Your task to perform on an android device: Go to eBay Image 0: 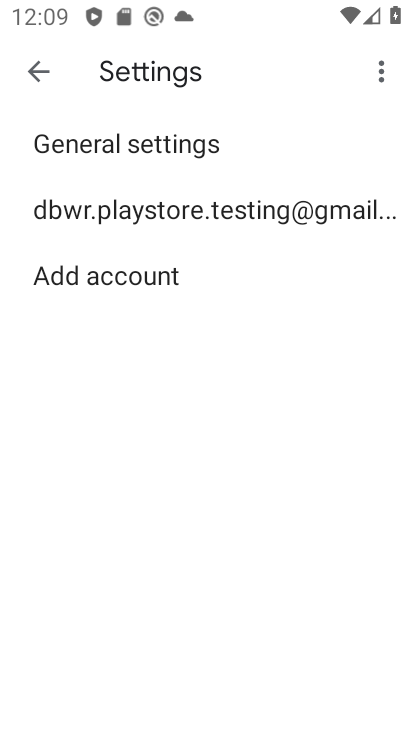
Step 0: press home button
Your task to perform on an android device: Go to eBay Image 1: 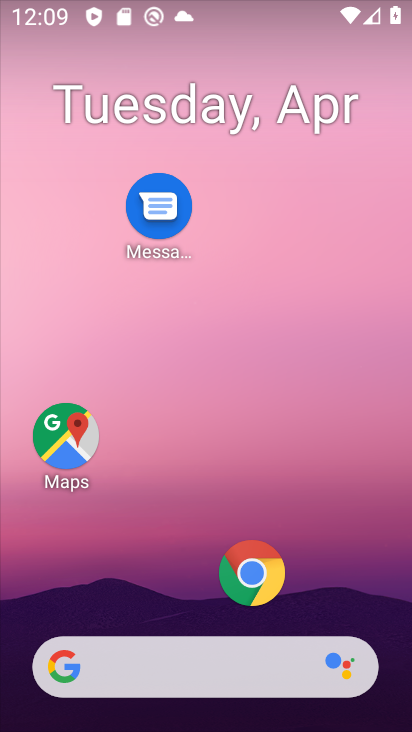
Step 1: click (258, 555)
Your task to perform on an android device: Go to eBay Image 2: 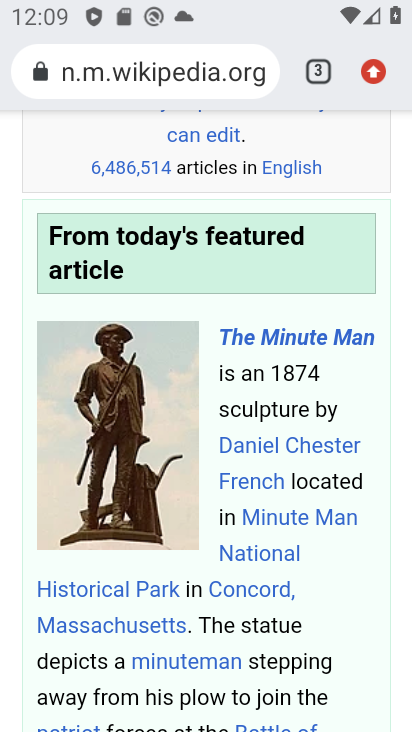
Step 2: click (316, 67)
Your task to perform on an android device: Go to eBay Image 3: 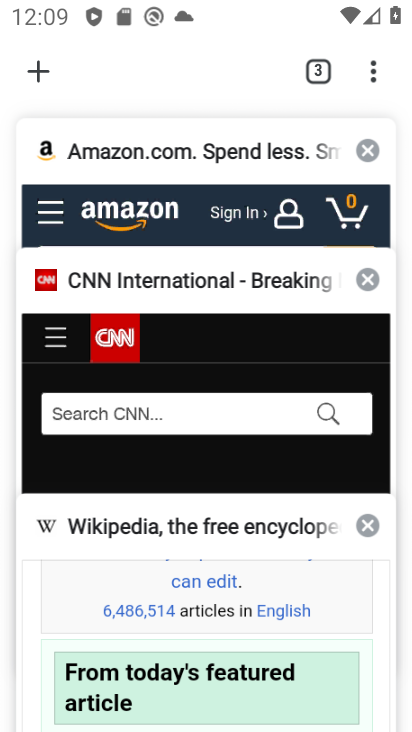
Step 3: click (38, 80)
Your task to perform on an android device: Go to eBay Image 4: 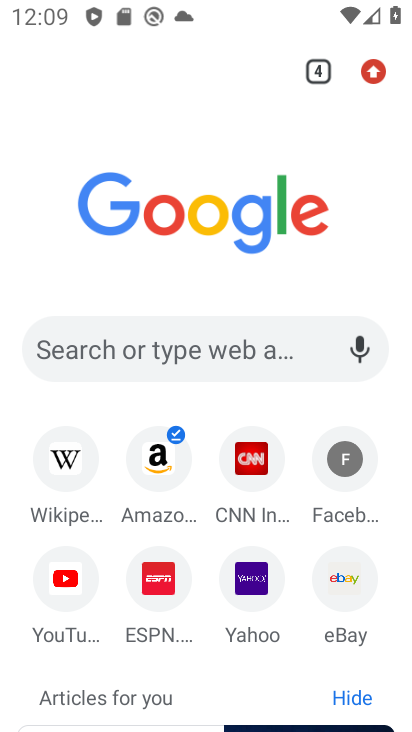
Step 4: click (358, 583)
Your task to perform on an android device: Go to eBay Image 5: 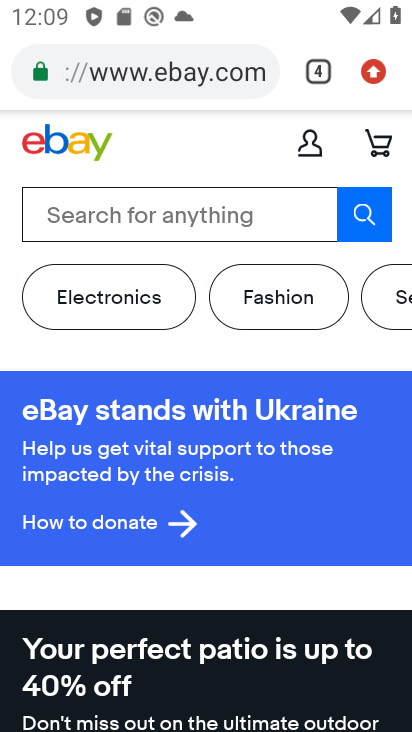
Step 5: task complete